Your task to perform on an android device: toggle improve location accuracy Image 0: 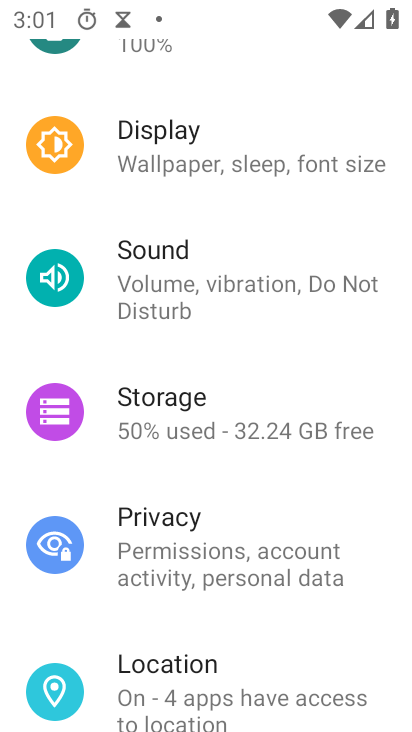
Step 0: press home button
Your task to perform on an android device: toggle improve location accuracy Image 1: 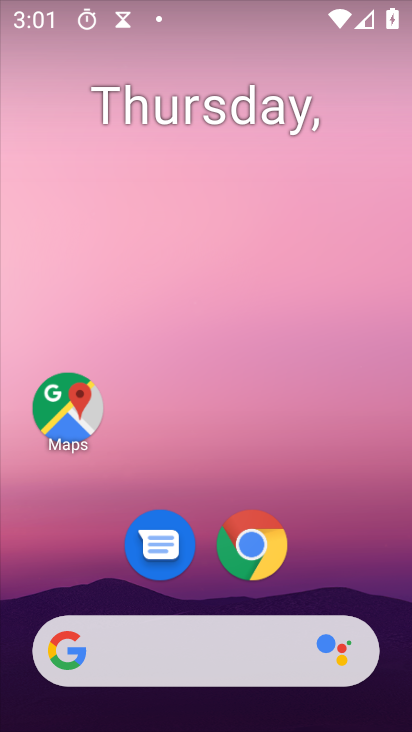
Step 1: drag from (220, 706) to (216, 107)
Your task to perform on an android device: toggle improve location accuracy Image 2: 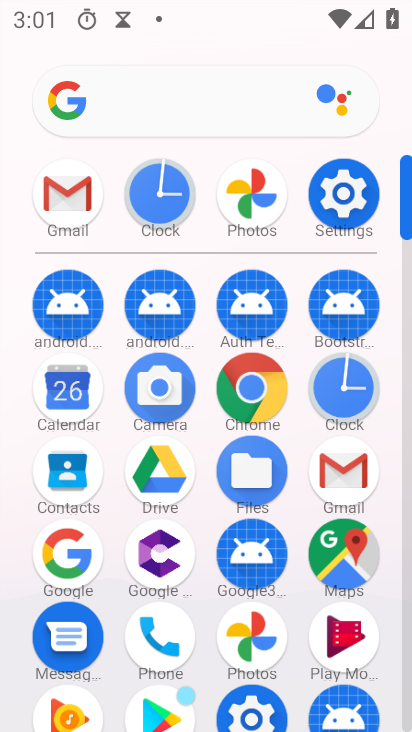
Step 2: click (347, 188)
Your task to perform on an android device: toggle improve location accuracy Image 3: 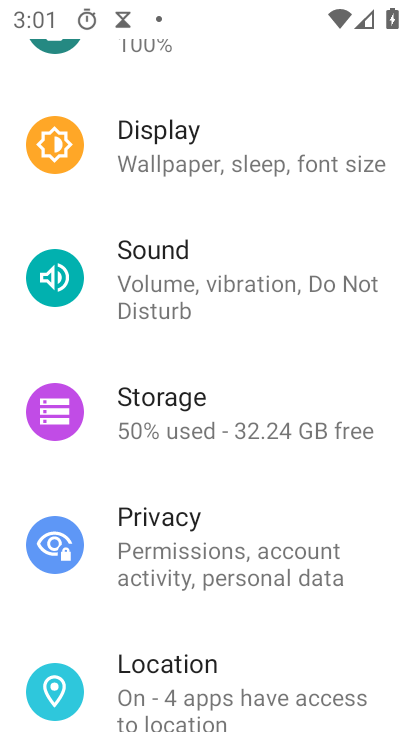
Step 3: click (160, 676)
Your task to perform on an android device: toggle improve location accuracy Image 4: 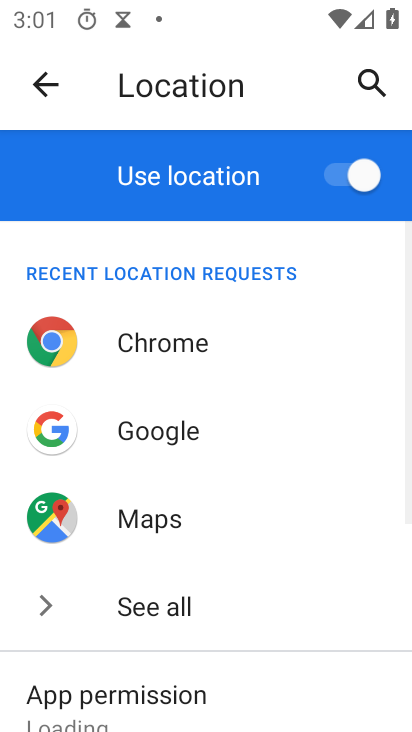
Step 4: drag from (204, 694) to (196, 233)
Your task to perform on an android device: toggle improve location accuracy Image 5: 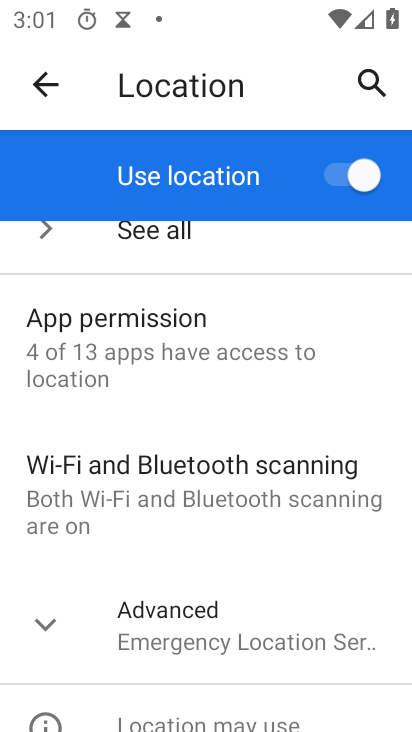
Step 5: click (170, 614)
Your task to perform on an android device: toggle improve location accuracy Image 6: 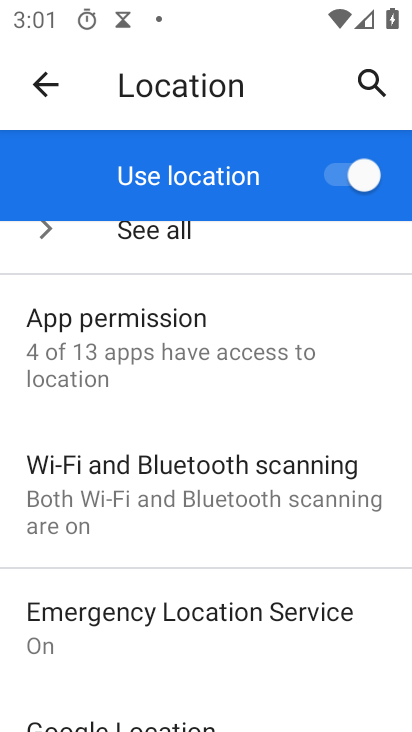
Step 6: drag from (220, 700) to (214, 283)
Your task to perform on an android device: toggle improve location accuracy Image 7: 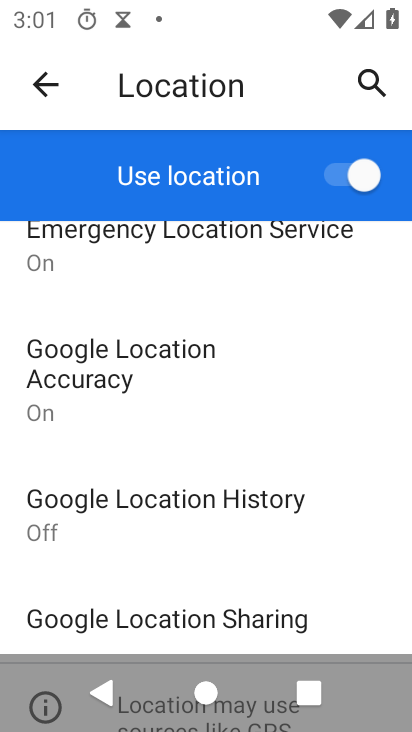
Step 7: click (90, 366)
Your task to perform on an android device: toggle improve location accuracy Image 8: 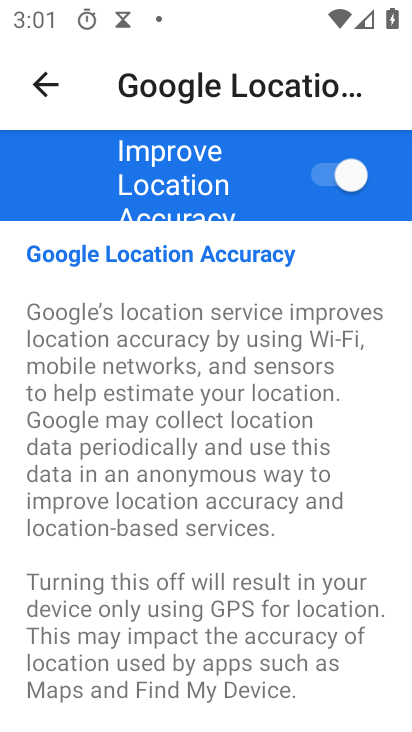
Step 8: click (327, 172)
Your task to perform on an android device: toggle improve location accuracy Image 9: 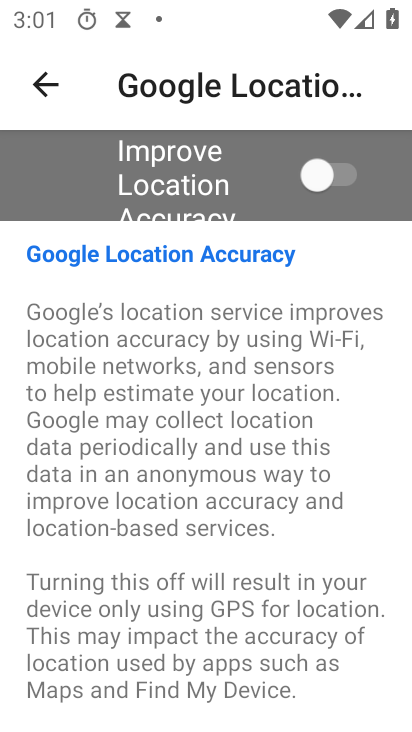
Step 9: task complete